Your task to perform on an android device: uninstall "Skype" Image 0: 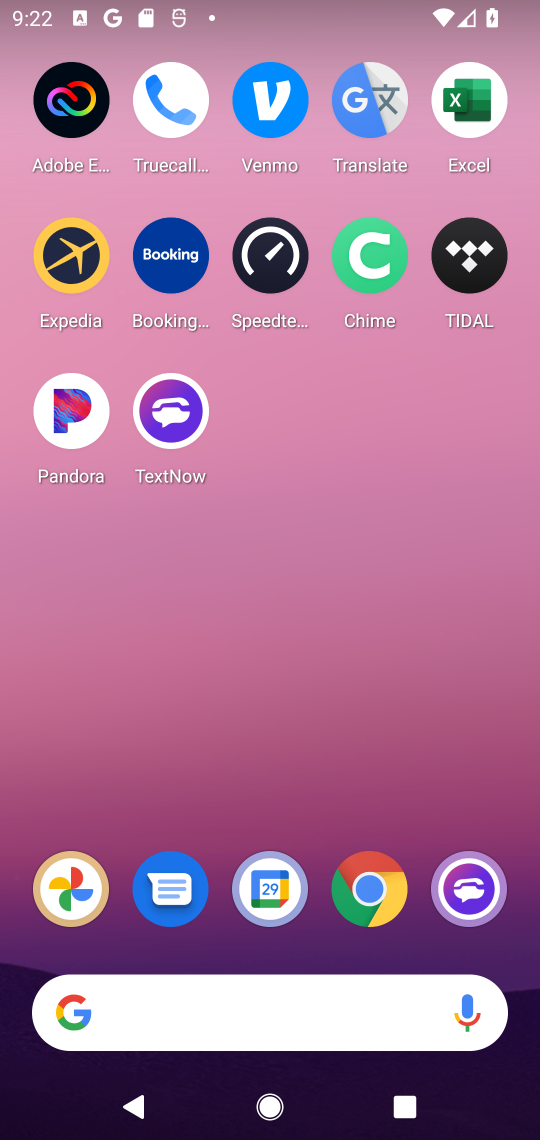
Step 0: press home button
Your task to perform on an android device: uninstall "Skype" Image 1: 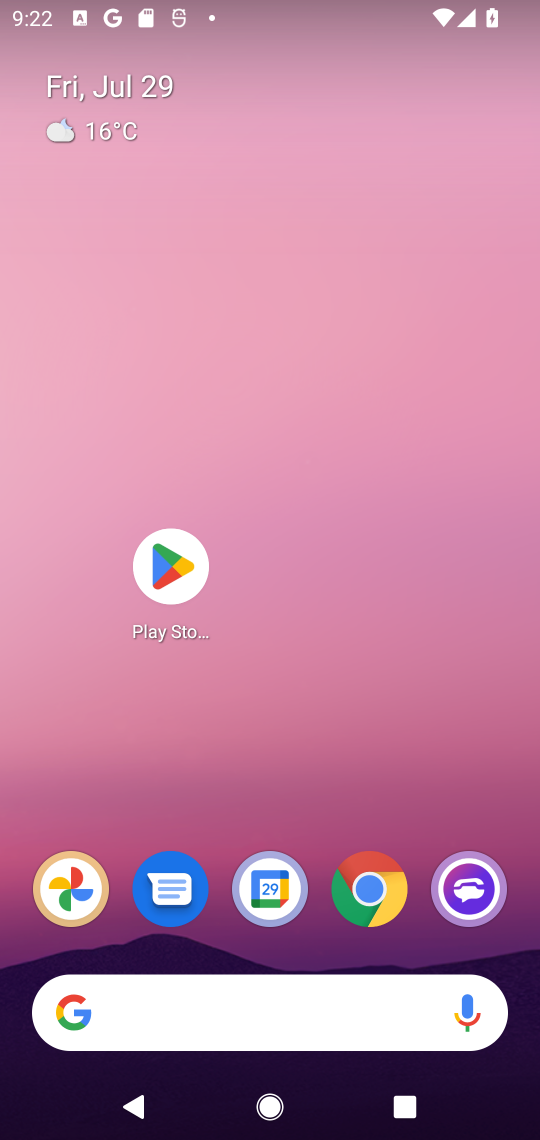
Step 1: click (169, 569)
Your task to perform on an android device: uninstall "Skype" Image 2: 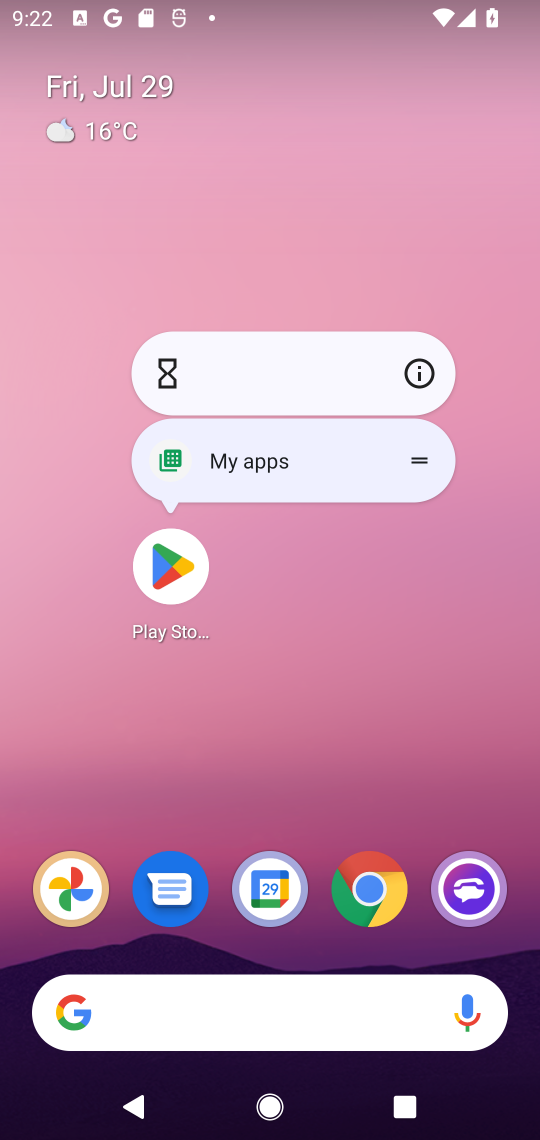
Step 2: click (176, 572)
Your task to perform on an android device: uninstall "Skype" Image 3: 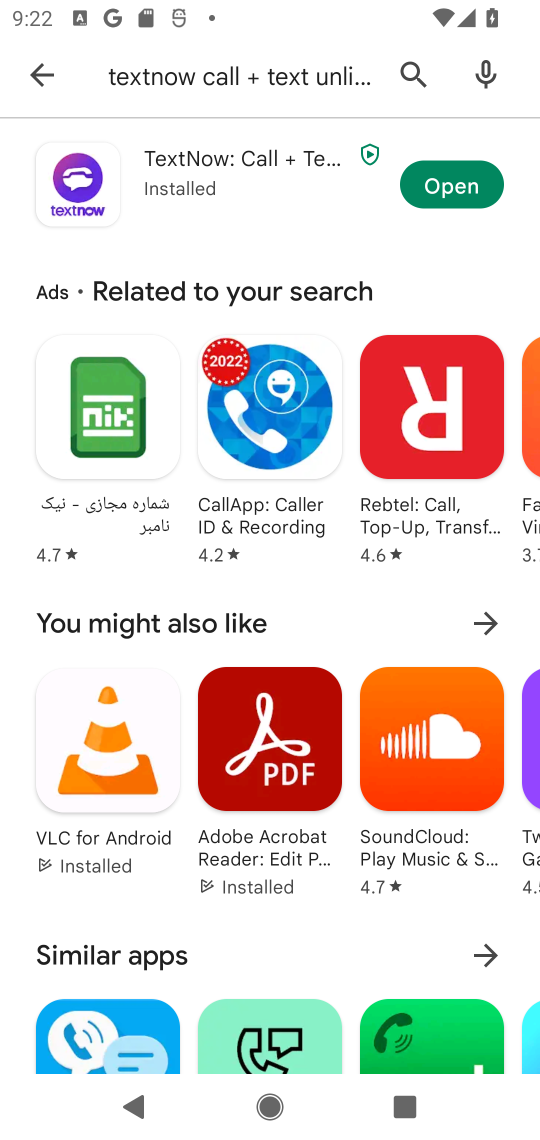
Step 3: click (413, 70)
Your task to perform on an android device: uninstall "Skype" Image 4: 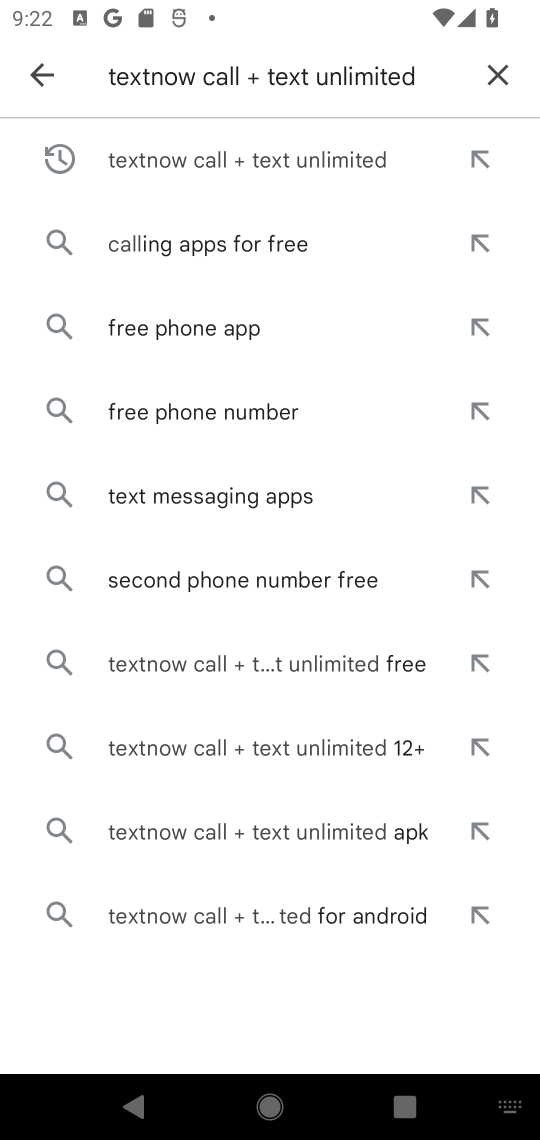
Step 4: click (495, 66)
Your task to perform on an android device: uninstall "Skype" Image 5: 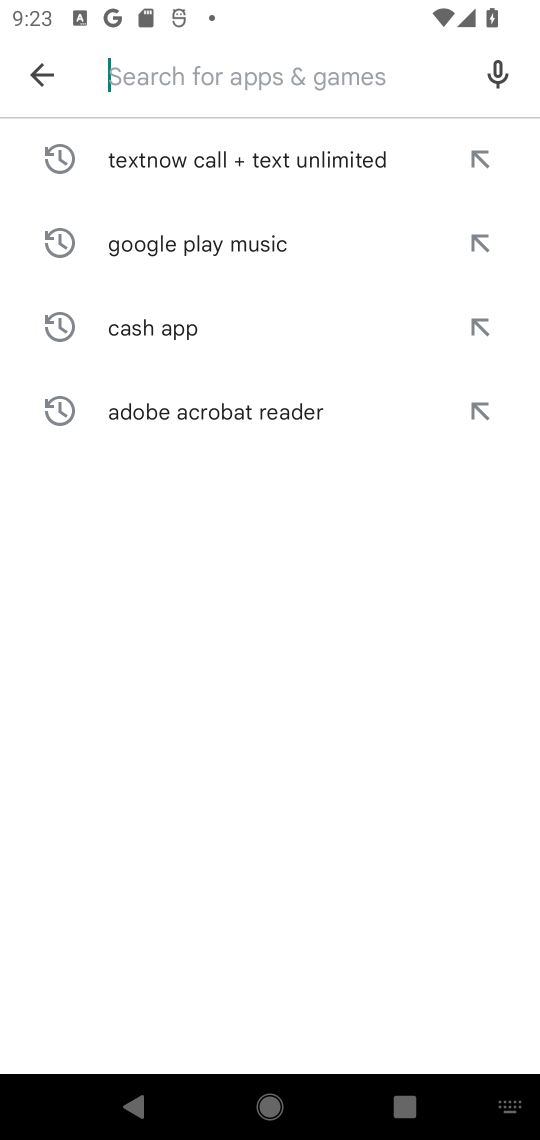
Step 5: type "Skype"
Your task to perform on an android device: uninstall "Skype" Image 6: 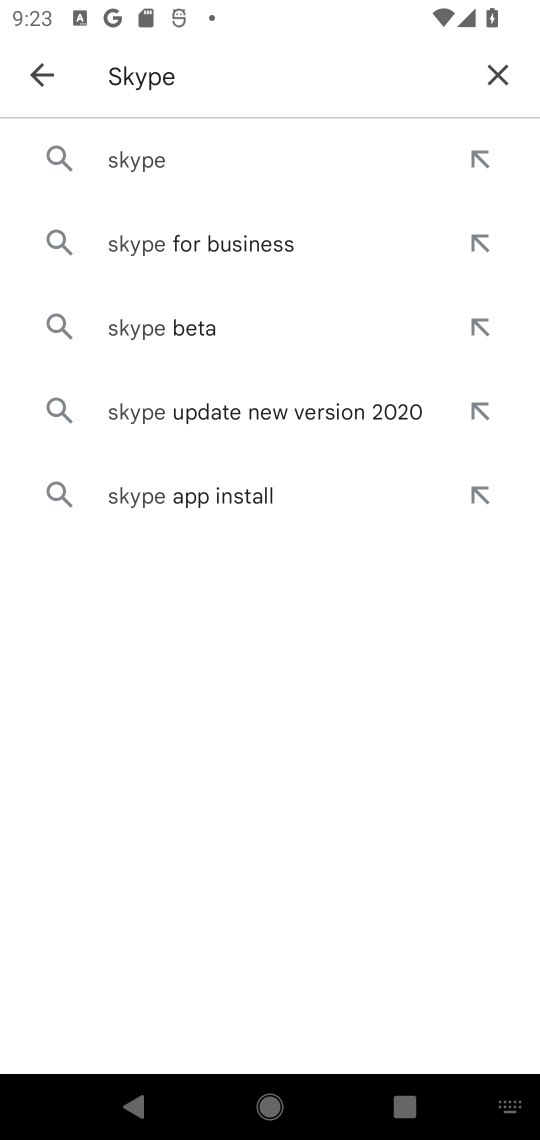
Step 6: click (152, 167)
Your task to perform on an android device: uninstall "Skype" Image 7: 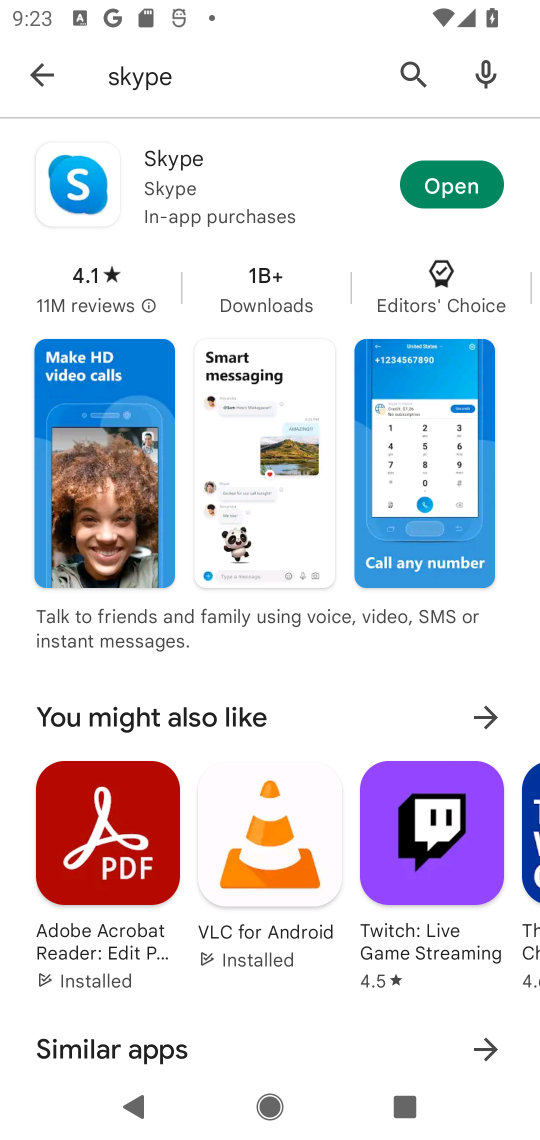
Step 7: click (81, 179)
Your task to perform on an android device: uninstall "Skype" Image 8: 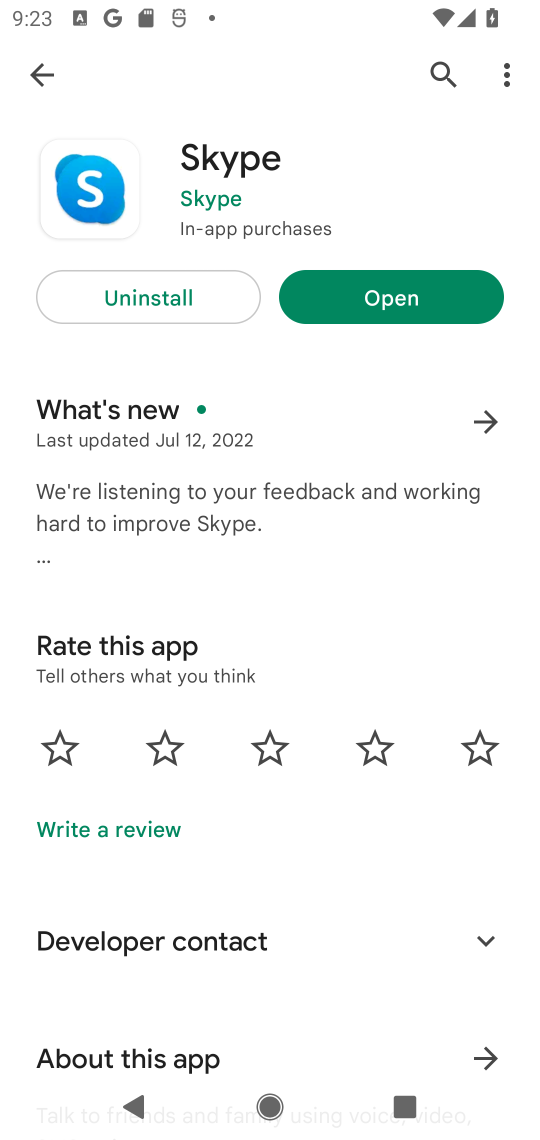
Step 8: click (194, 292)
Your task to perform on an android device: uninstall "Skype" Image 9: 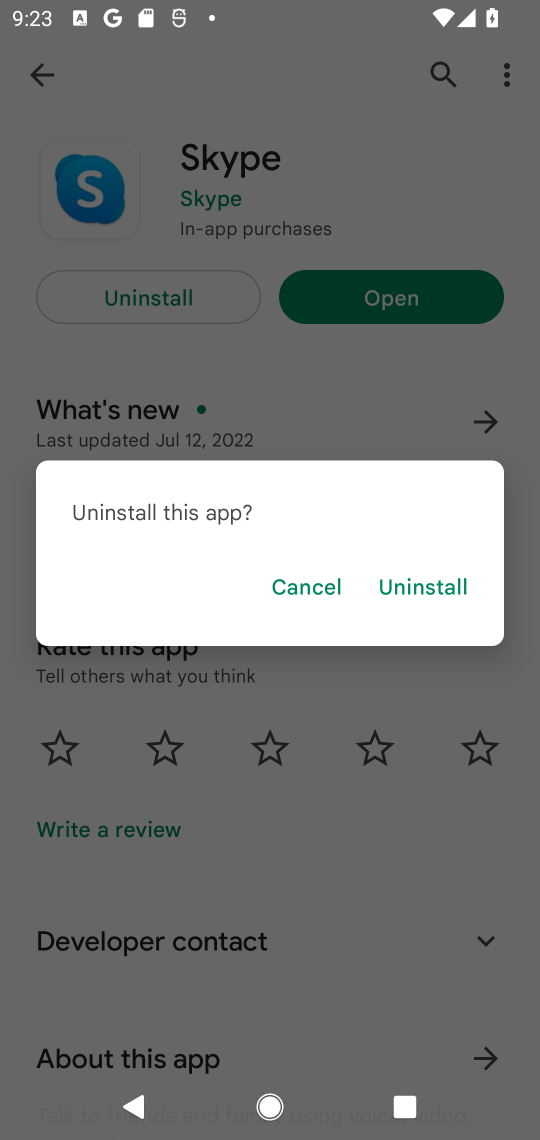
Step 9: click (398, 582)
Your task to perform on an android device: uninstall "Skype" Image 10: 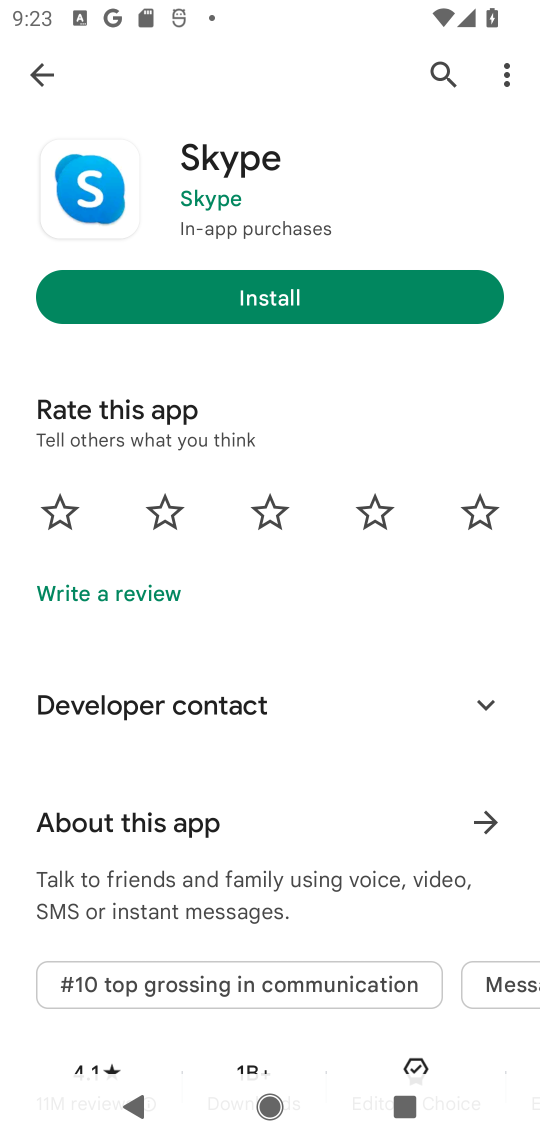
Step 10: task complete